Your task to perform on an android device: find which apps use the phone's location Image 0: 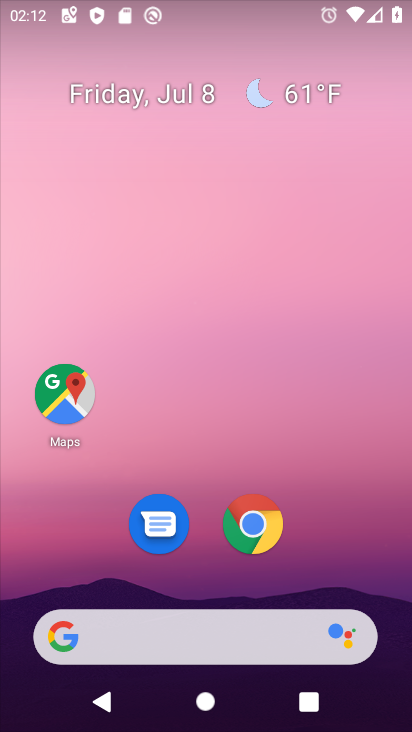
Step 0: drag from (312, 505) to (288, 12)
Your task to perform on an android device: find which apps use the phone's location Image 1: 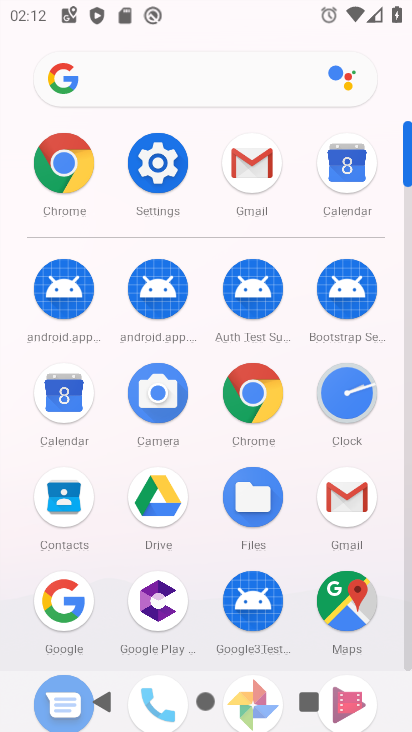
Step 1: click (146, 165)
Your task to perform on an android device: find which apps use the phone's location Image 2: 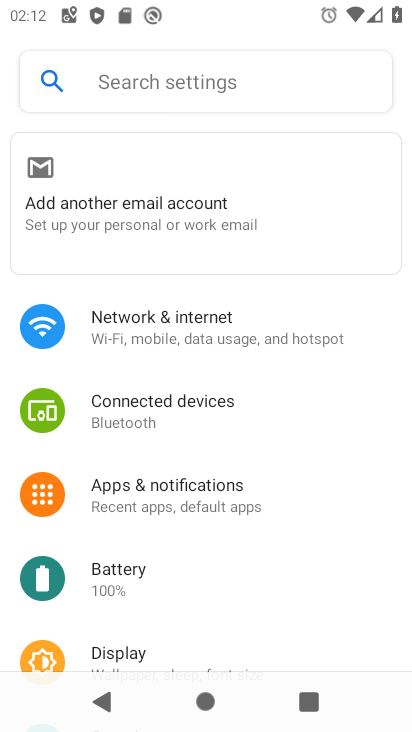
Step 2: drag from (203, 569) to (141, 106)
Your task to perform on an android device: find which apps use the phone's location Image 3: 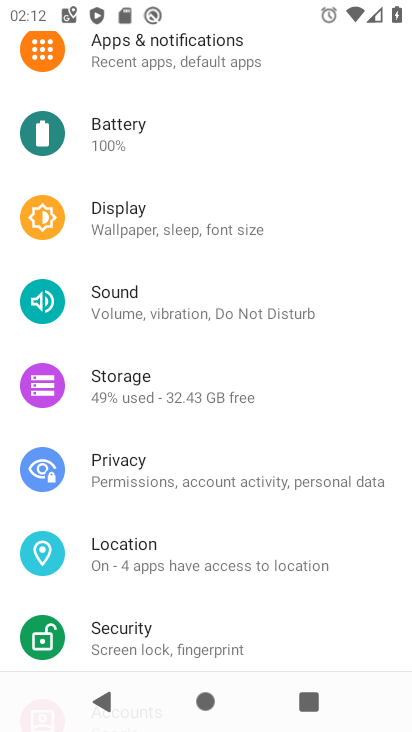
Step 3: click (217, 556)
Your task to perform on an android device: find which apps use the phone's location Image 4: 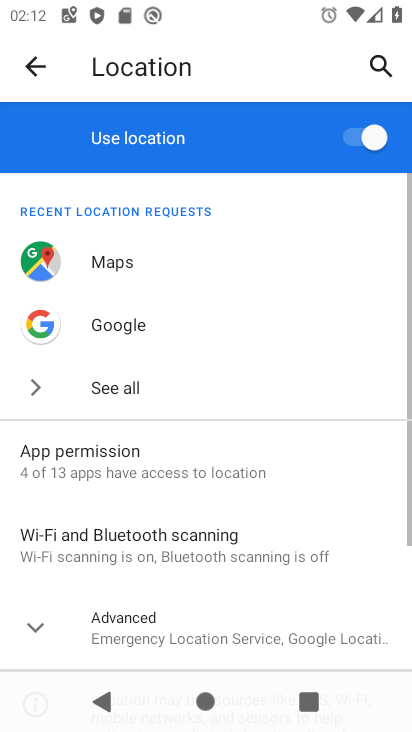
Step 4: click (123, 456)
Your task to perform on an android device: find which apps use the phone's location Image 5: 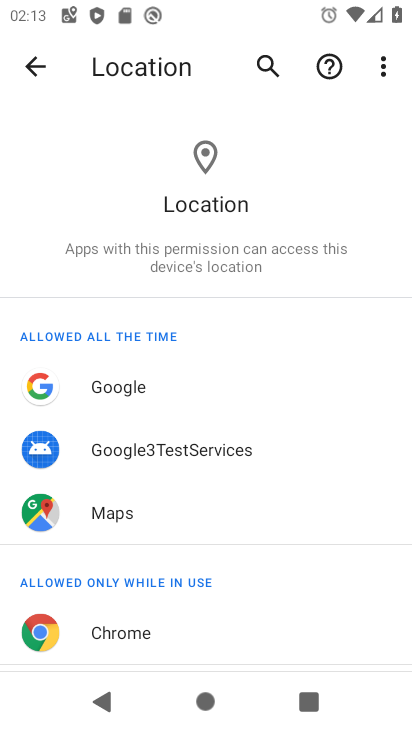
Step 5: task complete